Your task to perform on an android device: change the clock display to analog Image 0: 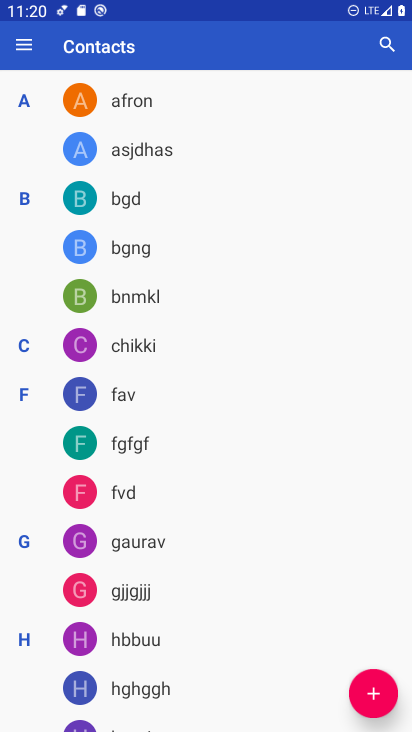
Step 0: press home button
Your task to perform on an android device: change the clock display to analog Image 1: 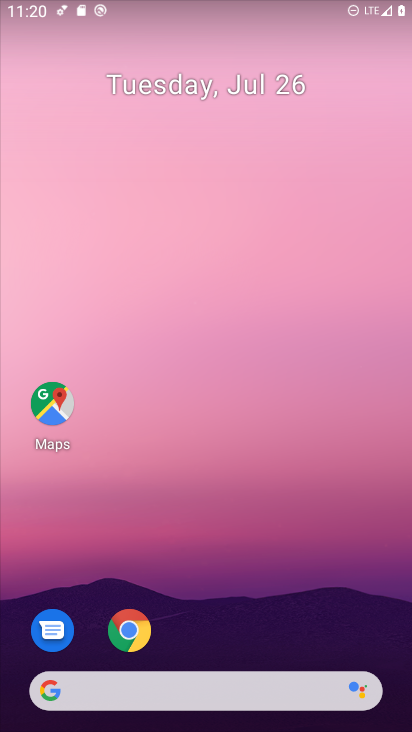
Step 1: drag from (364, 644) to (346, 257)
Your task to perform on an android device: change the clock display to analog Image 2: 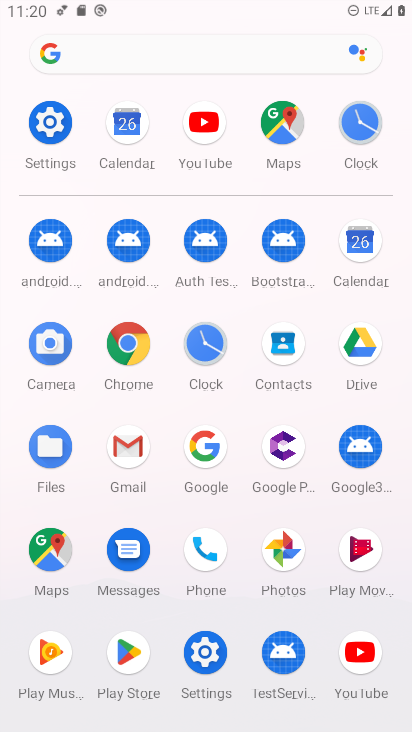
Step 2: click (204, 342)
Your task to perform on an android device: change the clock display to analog Image 3: 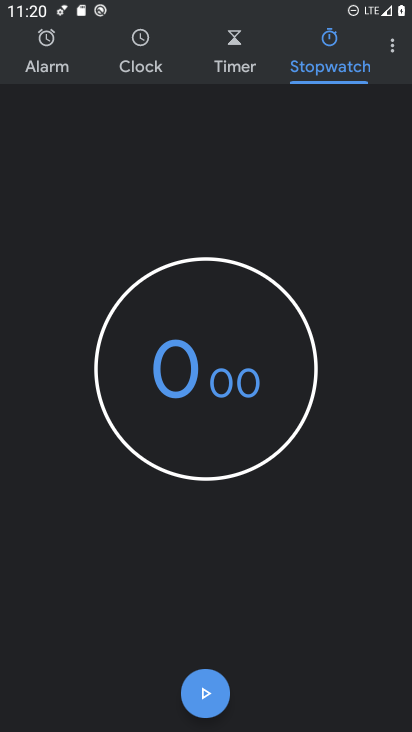
Step 3: click (394, 53)
Your task to perform on an android device: change the clock display to analog Image 4: 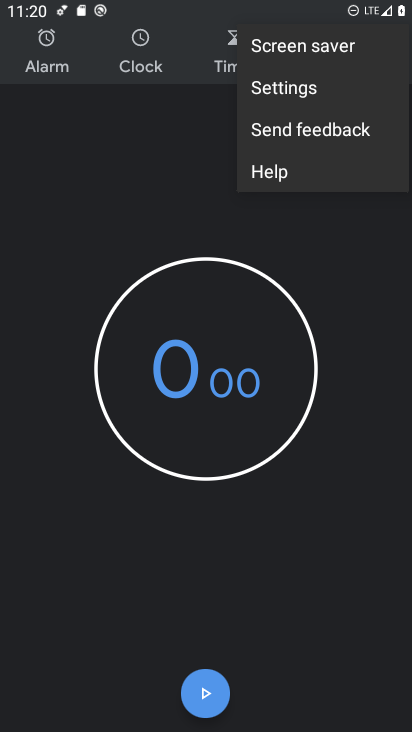
Step 4: click (277, 86)
Your task to perform on an android device: change the clock display to analog Image 5: 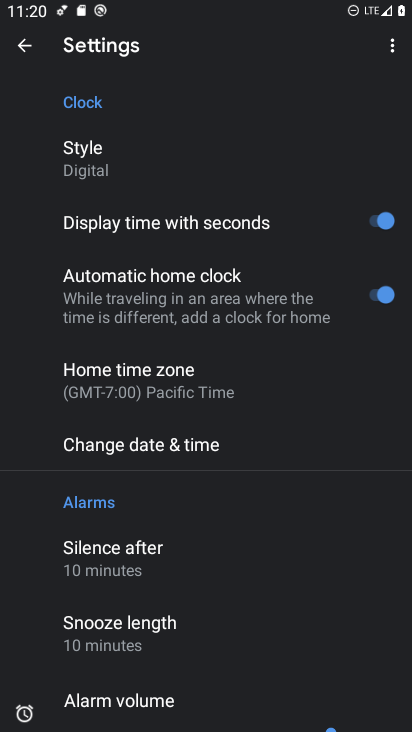
Step 5: click (81, 160)
Your task to perform on an android device: change the clock display to analog Image 6: 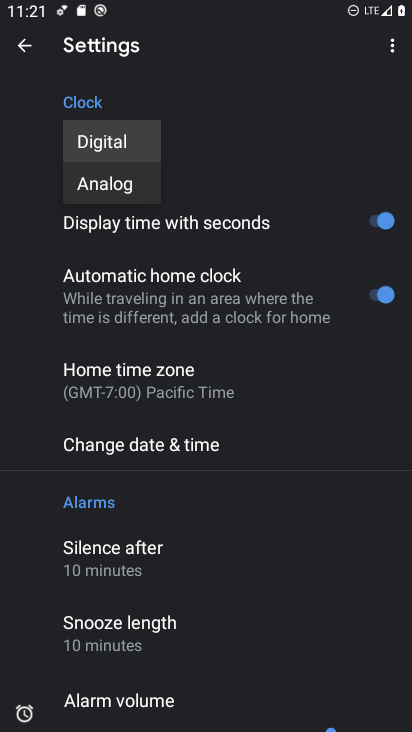
Step 6: click (98, 184)
Your task to perform on an android device: change the clock display to analog Image 7: 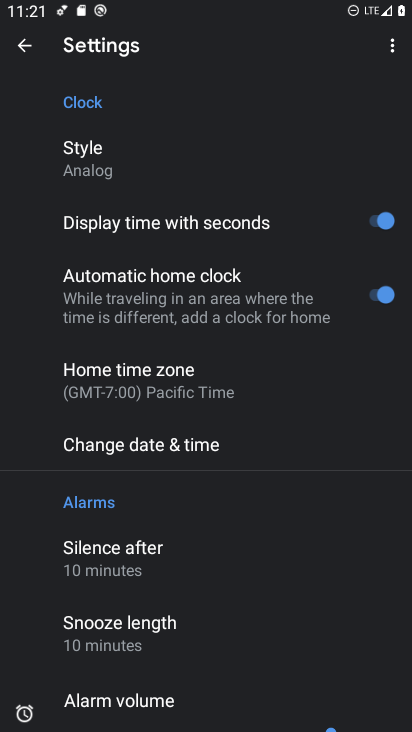
Step 7: task complete